Your task to perform on an android device: Open privacy settings Image 0: 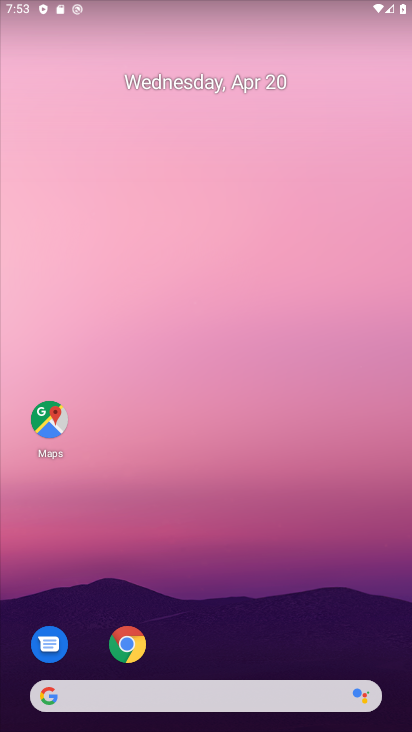
Step 0: drag from (170, 474) to (211, 0)
Your task to perform on an android device: Open privacy settings Image 1: 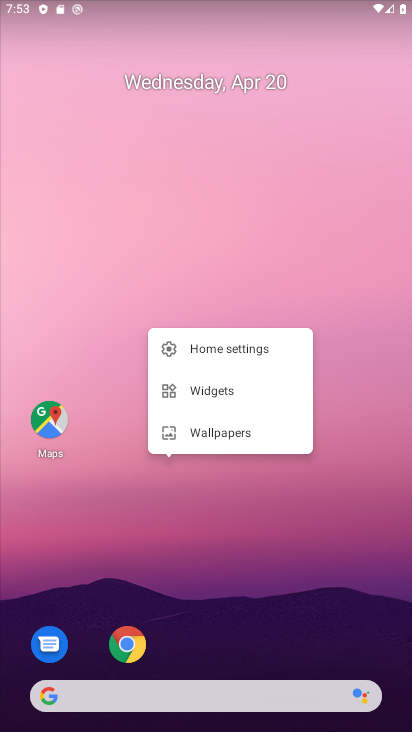
Step 1: drag from (349, 372) to (346, 172)
Your task to perform on an android device: Open privacy settings Image 2: 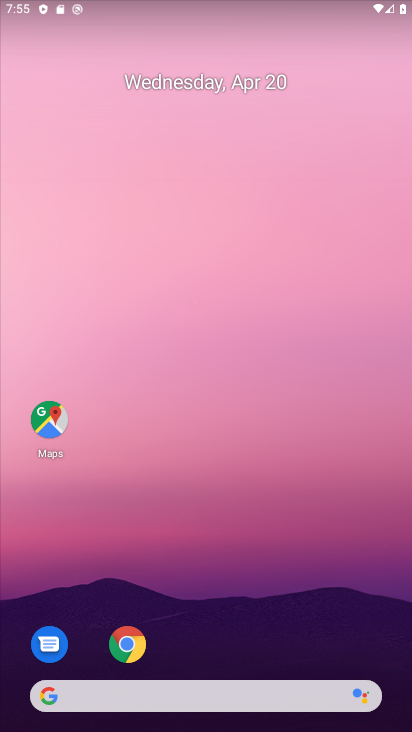
Step 2: drag from (209, 654) to (244, 5)
Your task to perform on an android device: Open privacy settings Image 3: 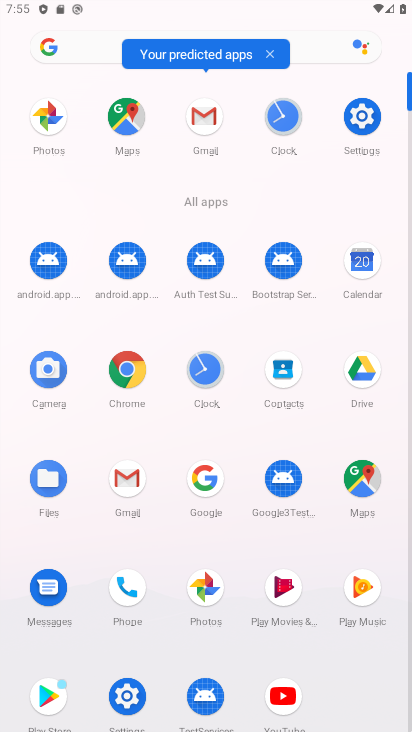
Step 3: click (130, 372)
Your task to perform on an android device: Open privacy settings Image 4: 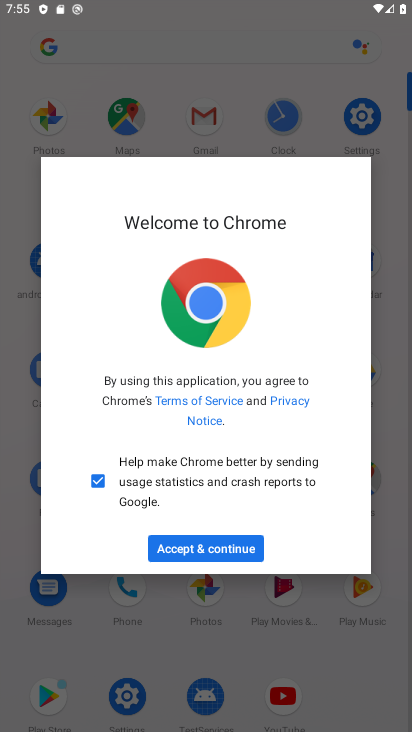
Step 4: click (234, 540)
Your task to perform on an android device: Open privacy settings Image 5: 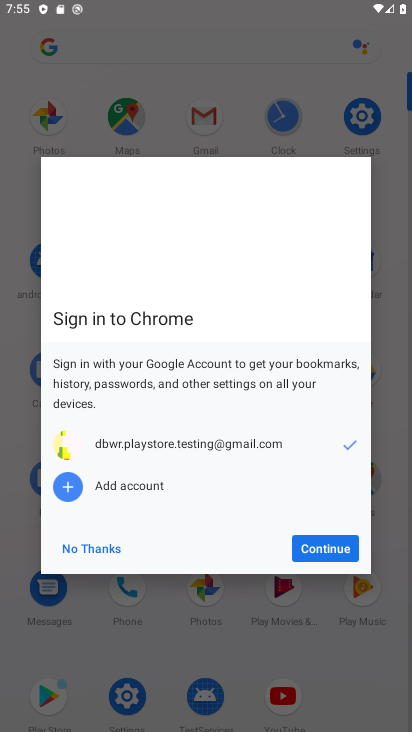
Step 5: click (349, 541)
Your task to perform on an android device: Open privacy settings Image 6: 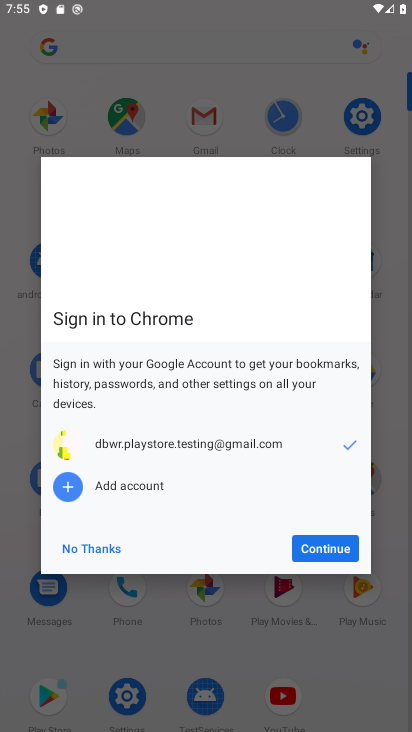
Step 6: click (349, 541)
Your task to perform on an android device: Open privacy settings Image 7: 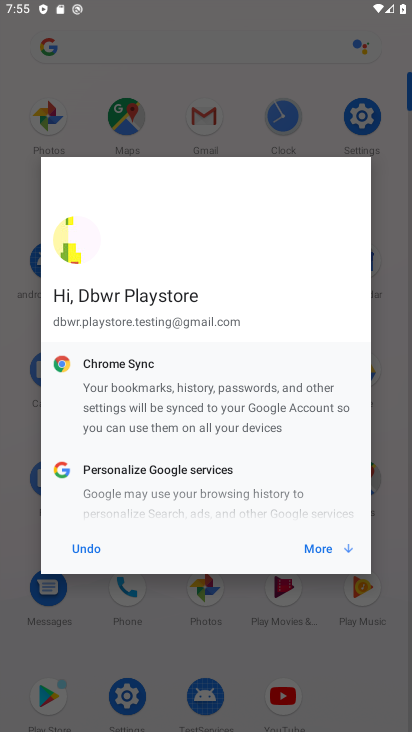
Step 7: click (339, 541)
Your task to perform on an android device: Open privacy settings Image 8: 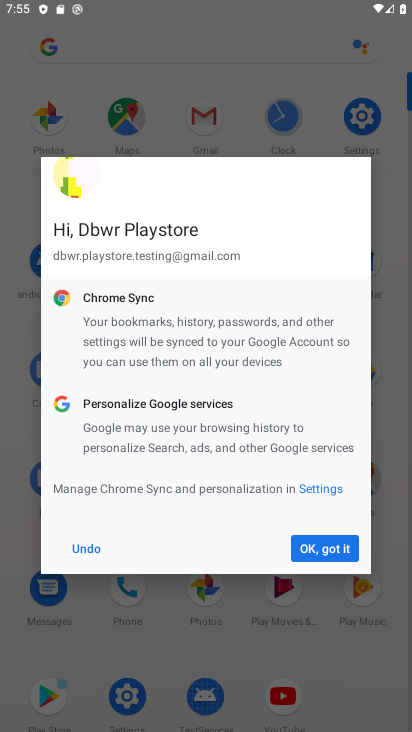
Step 8: click (339, 541)
Your task to perform on an android device: Open privacy settings Image 9: 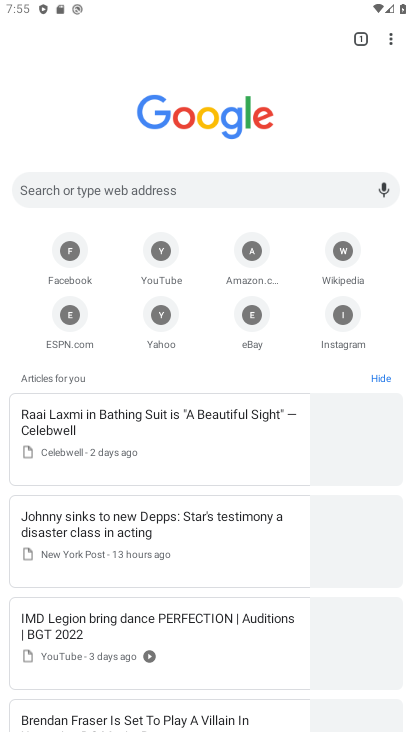
Step 9: click (389, 41)
Your task to perform on an android device: Open privacy settings Image 10: 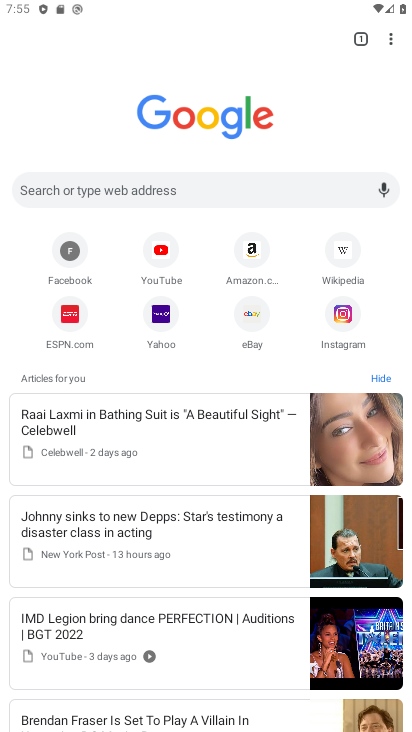
Step 10: click (389, 34)
Your task to perform on an android device: Open privacy settings Image 11: 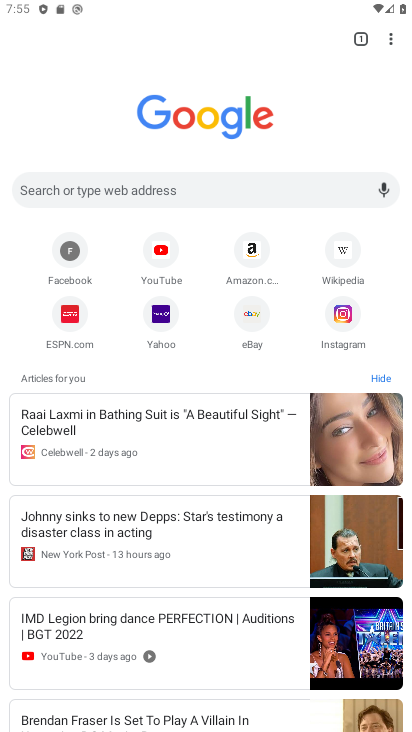
Step 11: drag from (388, 36) to (276, 319)
Your task to perform on an android device: Open privacy settings Image 12: 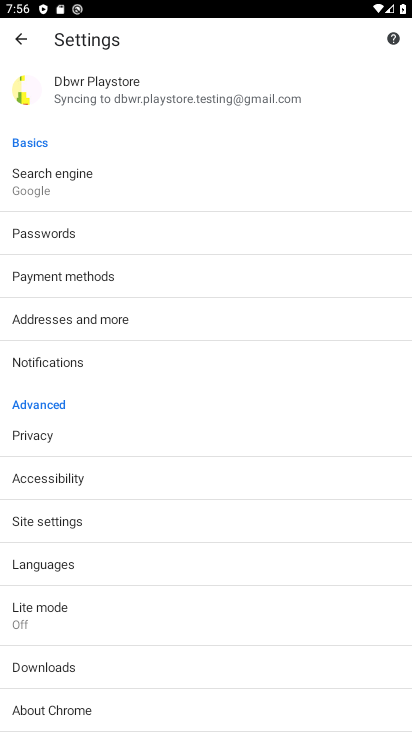
Step 12: click (34, 432)
Your task to perform on an android device: Open privacy settings Image 13: 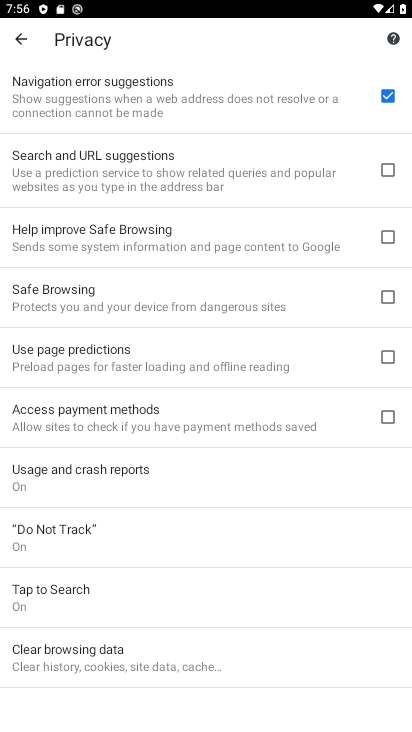
Step 13: task complete